Your task to perform on an android device: toggle pop-ups in chrome Image 0: 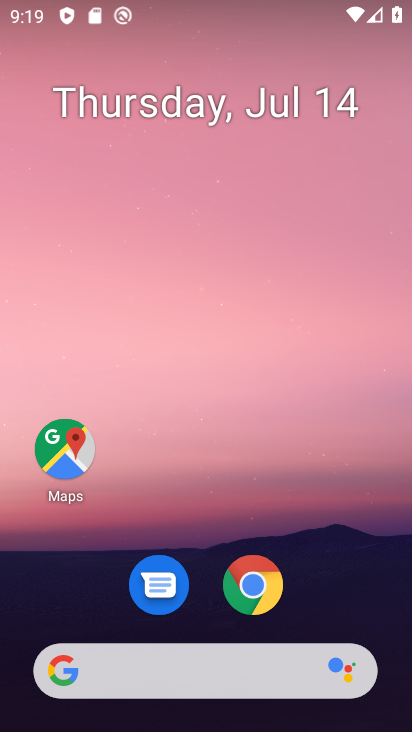
Step 0: click (273, 597)
Your task to perform on an android device: toggle pop-ups in chrome Image 1: 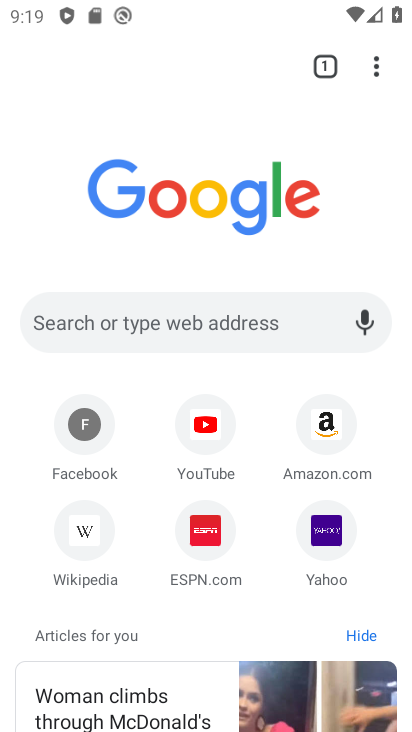
Step 1: click (373, 63)
Your task to perform on an android device: toggle pop-ups in chrome Image 2: 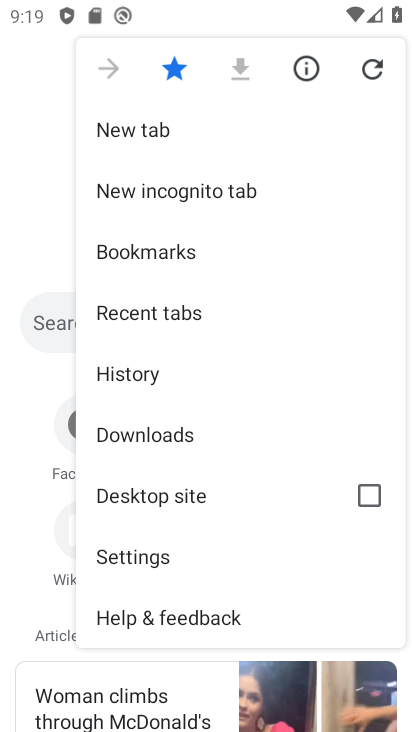
Step 2: click (153, 557)
Your task to perform on an android device: toggle pop-ups in chrome Image 3: 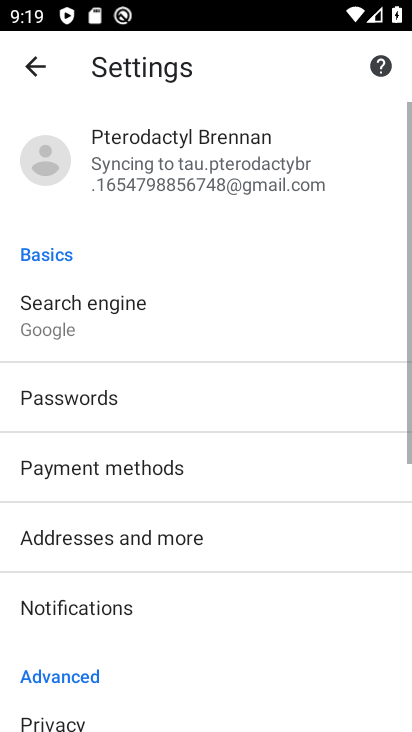
Step 3: drag from (153, 557) to (205, 8)
Your task to perform on an android device: toggle pop-ups in chrome Image 4: 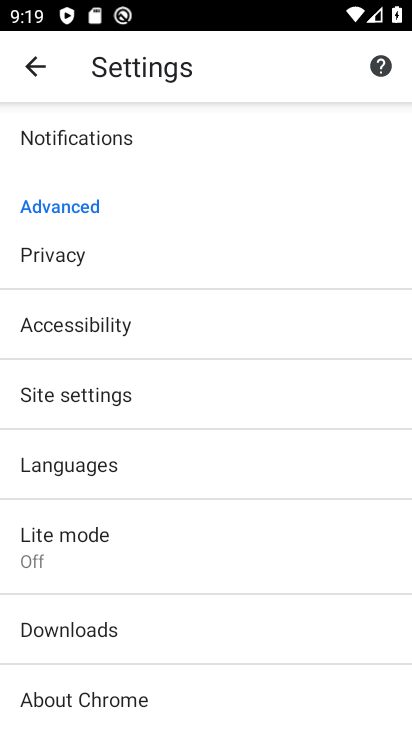
Step 4: click (58, 402)
Your task to perform on an android device: toggle pop-ups in chrome Image 5: 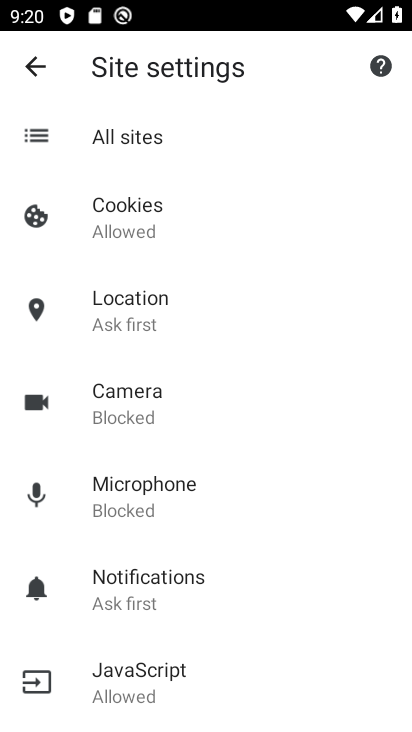
Step 5: drag from (220, 624) to (141, 140)
Your task to perform on an android device: toggle pop-ups in chrome Image 6: 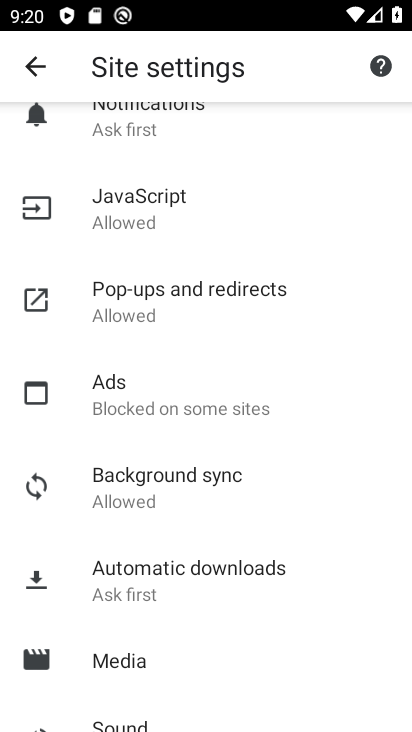
Step 6: click (128, 321)
Your task to perform on an android device: toggle pop-ups in chrome Image 7: 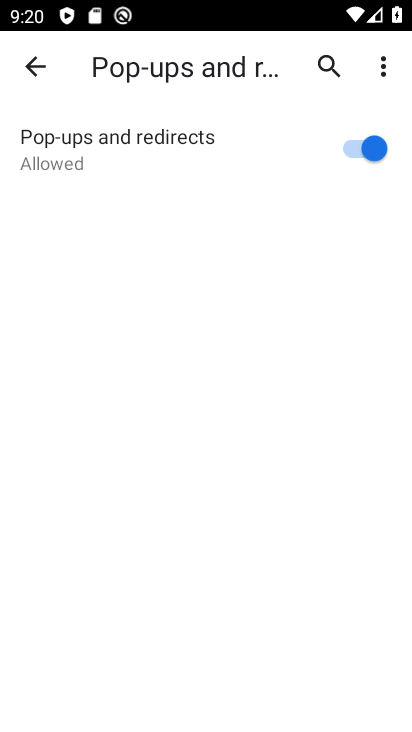
Step 7: click (344, 152)
Your task to perform on an android device: toggle pop-ups in chrome Image 8: 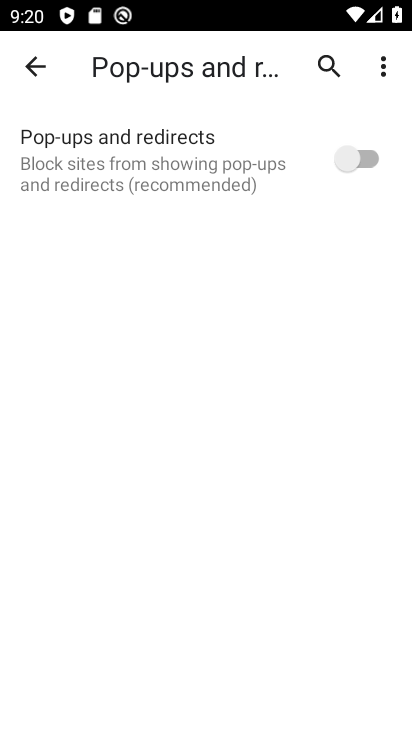
Step 8: task complete